Your task to perform on an android device: turn on data saver in the chrome app Image 0: 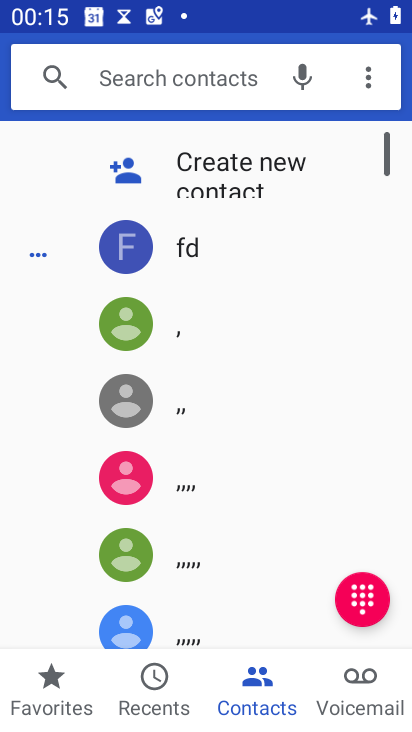
Step 0: press home button
Your task to perform on an android device: turn on data saver in the chrome app Image 1: 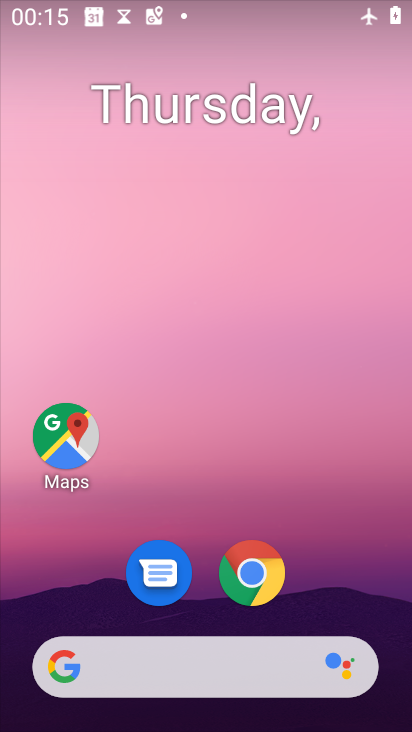
Step 1: drag from (332, 584) to (347, 316)
Your task to perform on an android device: turn on data saver in the chrome app Image 2: 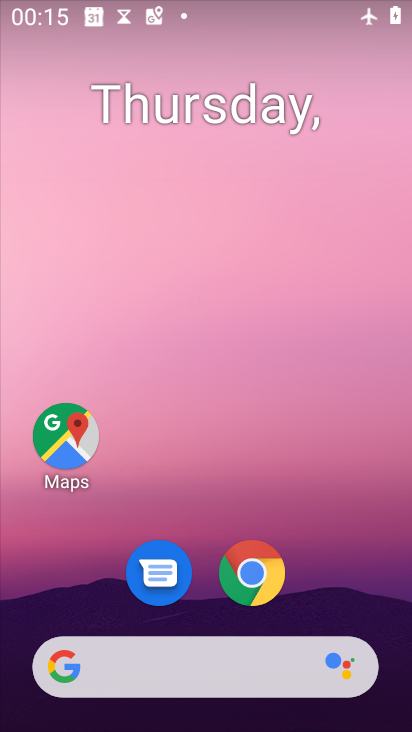
Step 2: click (259, 572)
Your task to perform on an android device: turn on data saver in the chrome app Image 3: 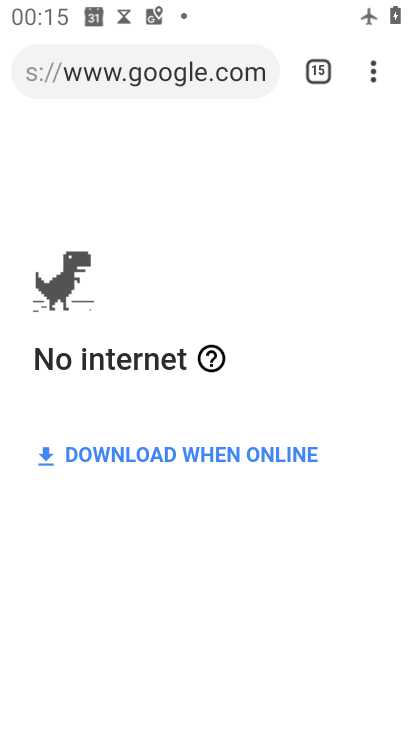
Step 3: click (376, 71)
Your task to perform on an android device: turn on data saver in the chrome app Image 4: 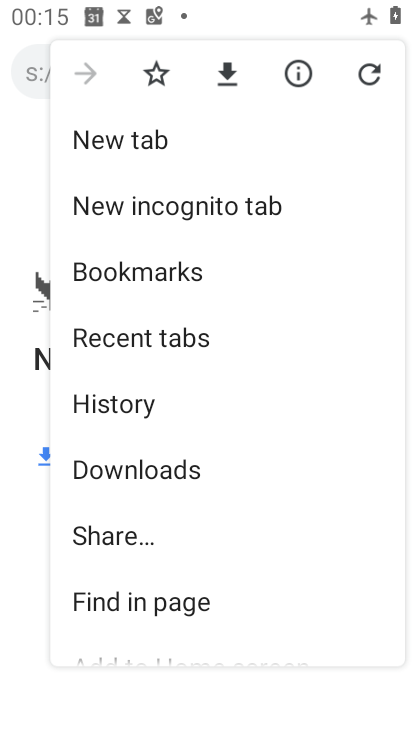
Step 4: drag from (196, 504) to (211, 259)
Your task to perform on an android device: turn on data saver in the chrome app Image 5: 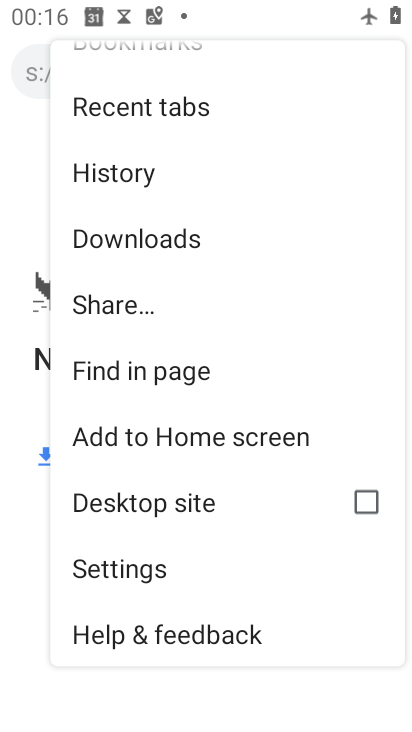
Step 5: click (168, 563)
Your task to perform on an android device: turn on data saver in the chrome app Image 6: 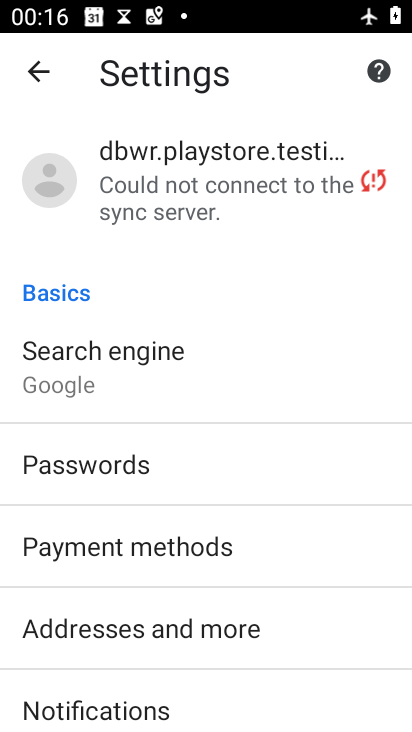
Step 6: drag from (200, 582) to (230, 402)
Your task to perform on an android device: turn on data saver in the chrome app Image 7: 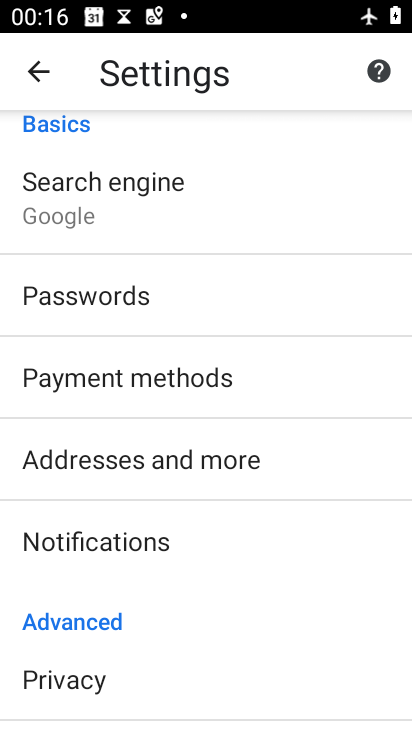
Step 7: drag from (180, 570) to (175, 313)
Your task to perform on an android device: turn on data saver in the chrome app Image 8: 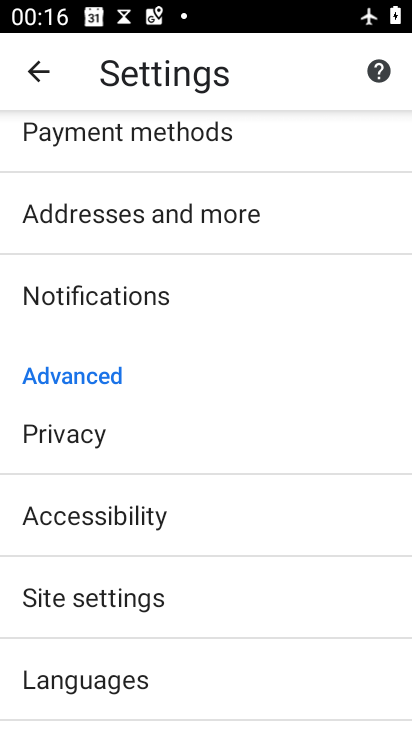
Step 8: drag from (142, 643) to (170, 360)
Your task to perform on an android device: turn on data saver in the chrome app Image 9: 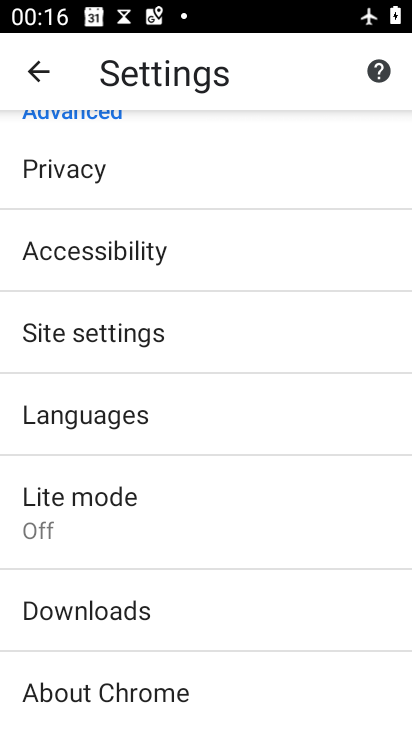
Step 9: click (129, 477)
Your task to perform on an android device: turn on data saver in the chrome app Image 10: 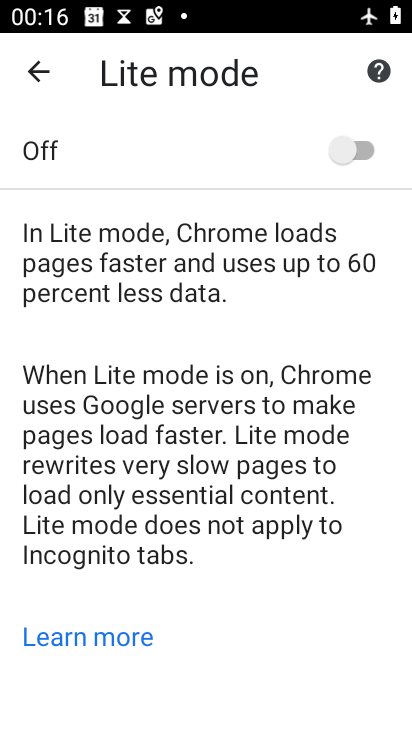
Step 10: click (350, 151)
Your task to perform on an android device: turn on data saver in the chrome app Image 11: 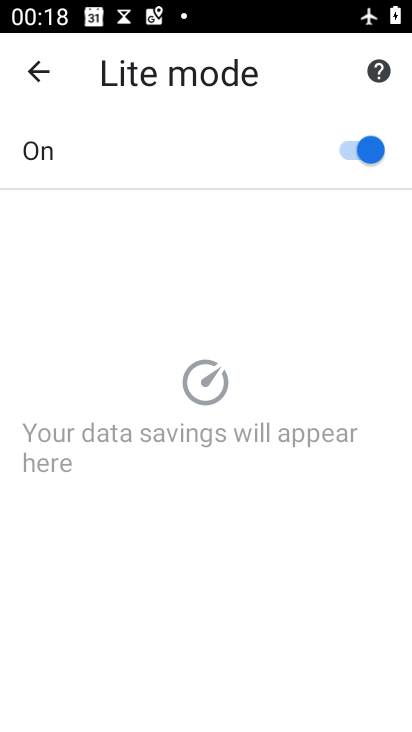
Step 11: task complete